Your task to perform on an android device: Find coffee shops on Maps Image 0: 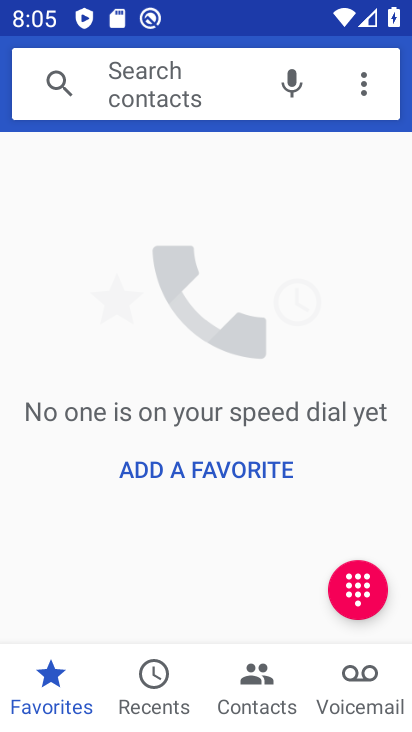
Step 0: press home button
Your task to perform on an android device: Find coffee shops on Maps Image 1: 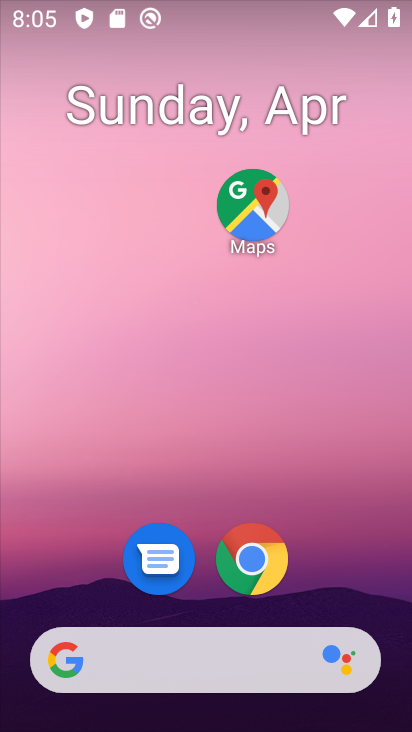
Step 1: click (248, 218)
Your task to perform on an android device: Find coffee shops on Maps Image 2: 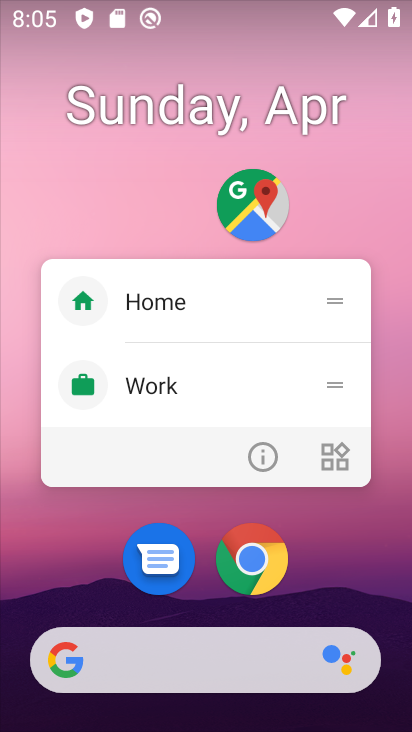
Step 2: click (262, 467)
Your task to perform on an android device: Find coffee shops on Maps Image 3: 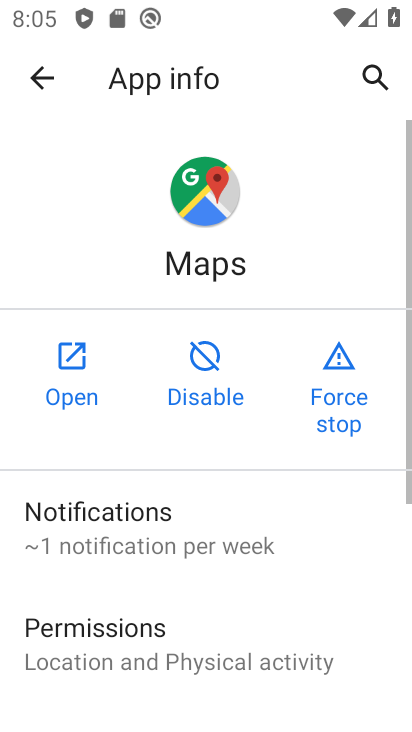
Step 3: click (84, 369)
Your task to perform on an android device: Find coffee shops on Maps Image 4: 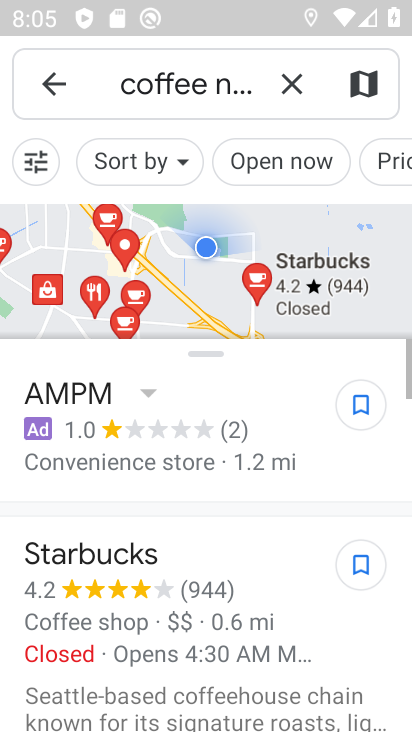
Step 4: click (291, 81)
Your task to perform on an android device: Find coffee shops on Maps Image 5: 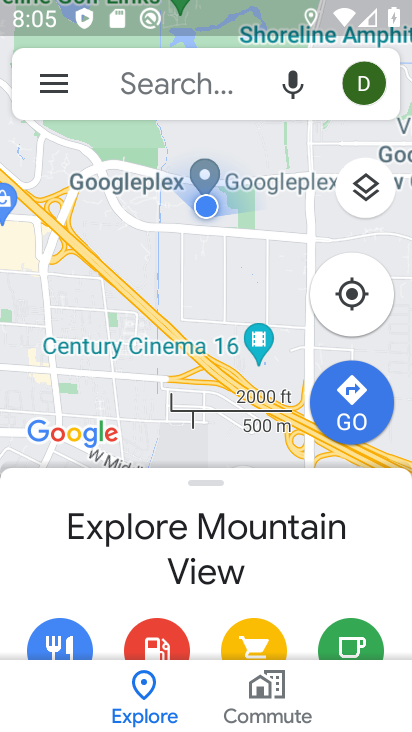
Step 5: click (159, 79)
Your task to perform on an android device: Find coffee shops on Maps Image 6: 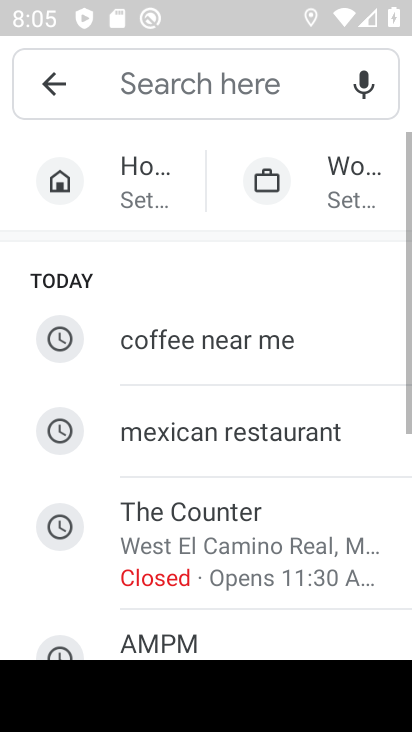
Step 6: click (191, 347)
Your task to perform on an android device: Find coffee shops on Maps Image 7: 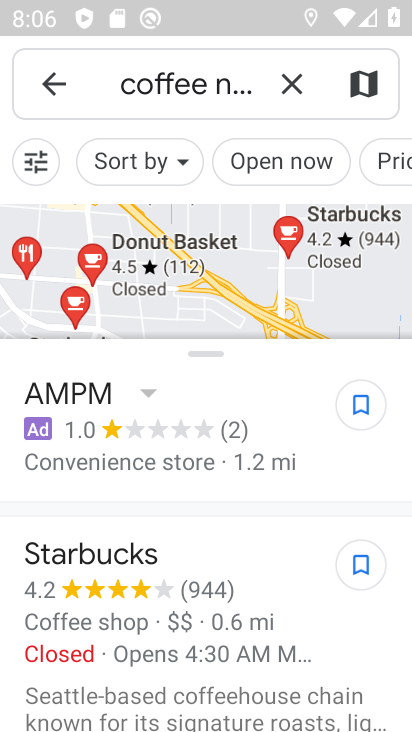
Step 7: task complete